Your task to perform on an android device: Search for sushi restaurants on Maps Image 0: 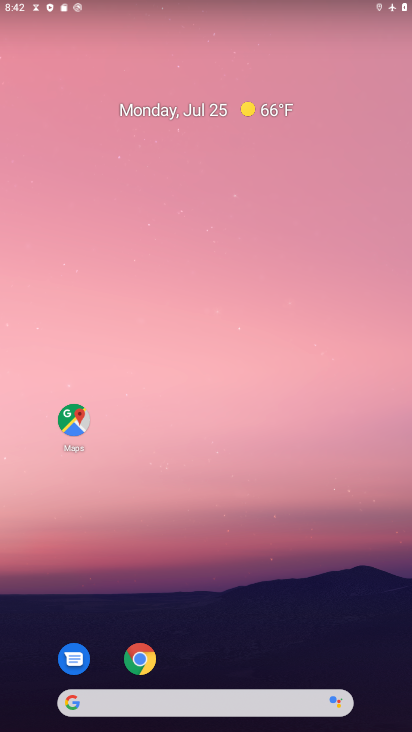
Step 0: drag from (235, 596) to (164, 120)
Your task to perform on an android device: Search for sushi restaurants on Maps Image 1: 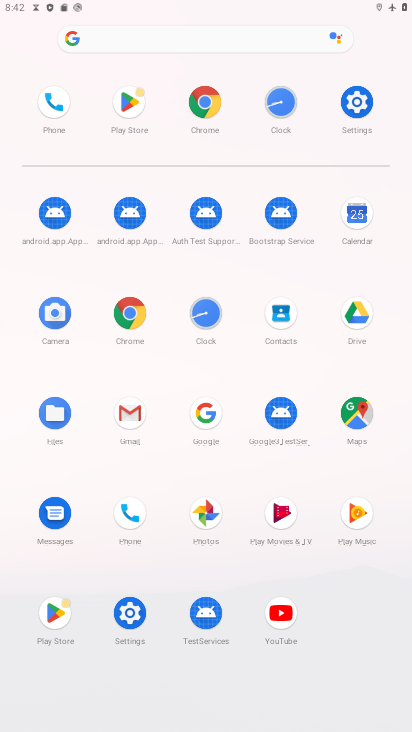
Step 1: click (354, 388)
Your task to perform on an android device: Search for sushi restaurants on Maps Image 2: 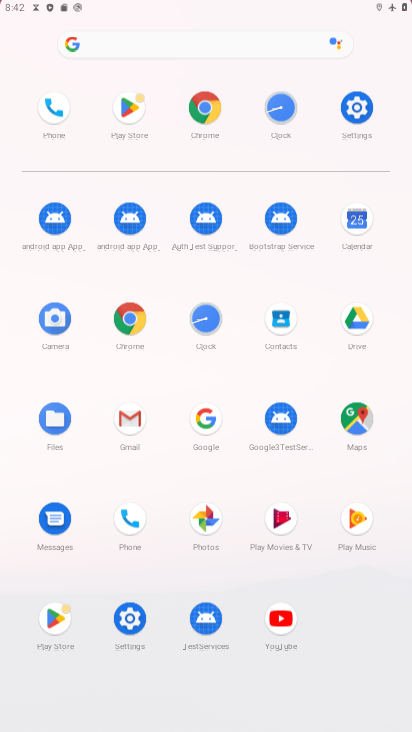
Step 2: click (356, 423)
Your task to perform on an android device: Search for sushi restaurants on Maps Image 3: 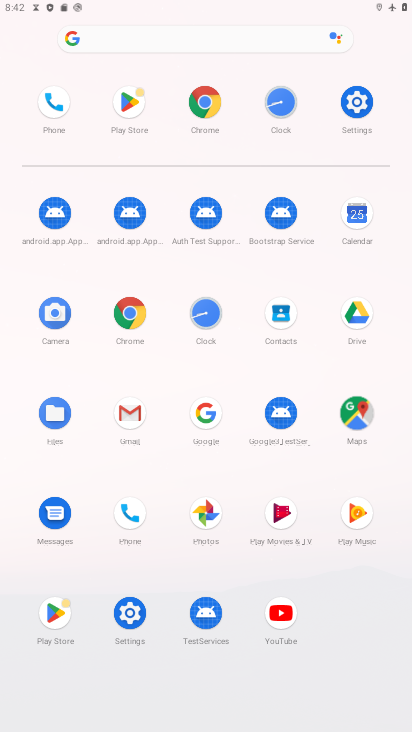
Step 3: click (352, 423)
Your task to perform on an android device: Search for sushi restaurants on Maps Image 4: 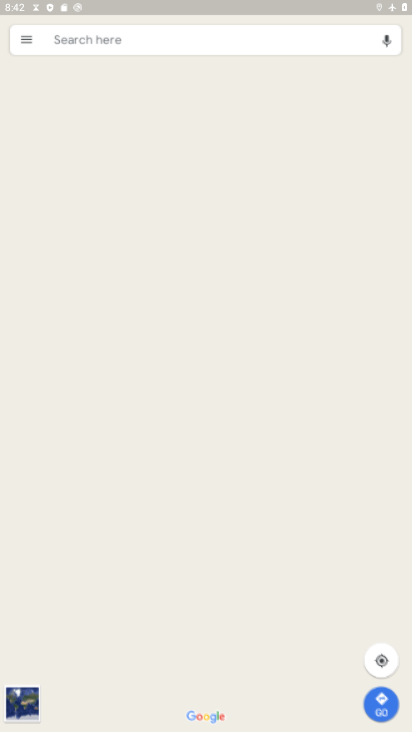
Step 4: click (353, 424)
Your task to perform on an android device: Search for sushi restaurants on Maps Image 5: 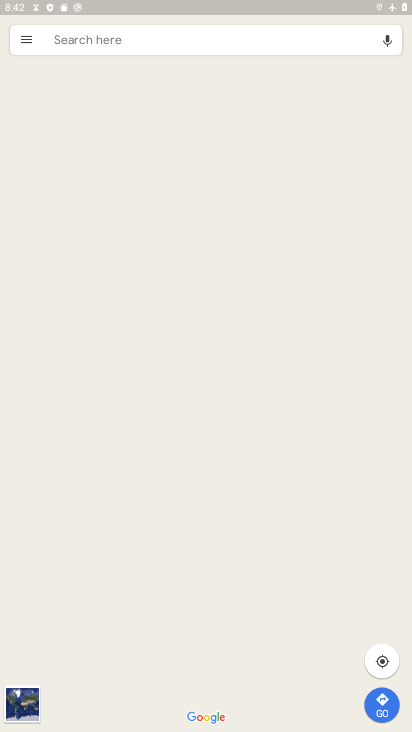
Step 5: click (353, 424)
Your task to perform on an android device: Search for sushi restaurants on Maps Image 6: 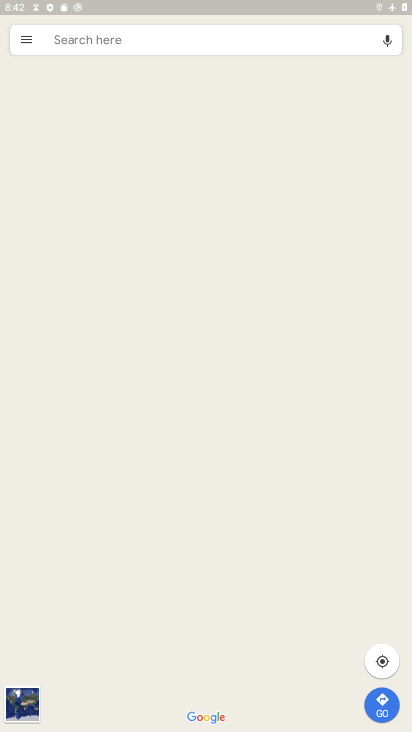
Step 6: click (81, 35)
Your task to perform on an android device: Search for sushi restaurants on Maps Image 7: 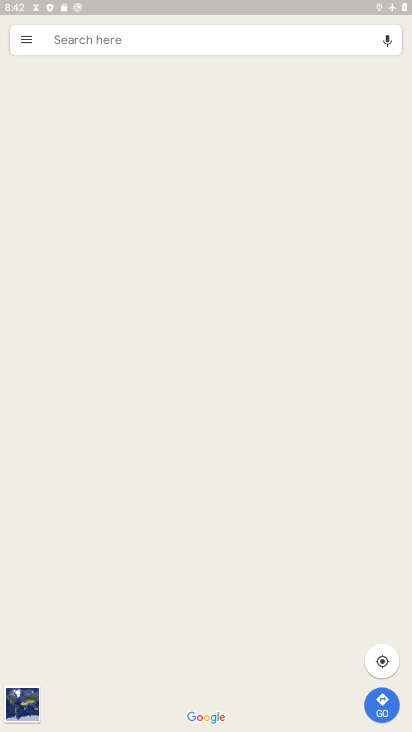
Step 7: click (81, 35)
Your task to perform on an android device: Search for sushi restaurants on Maps Image 8: 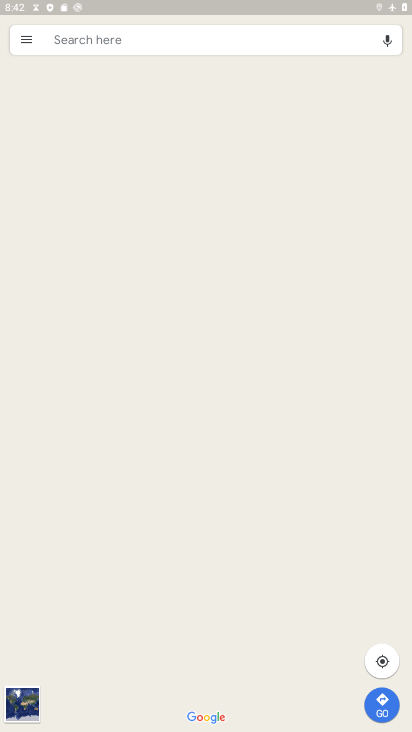
Step 8: click (85, 40)
Your task to perform on an android device: Search for sushi restaurants on Maps Image 9: 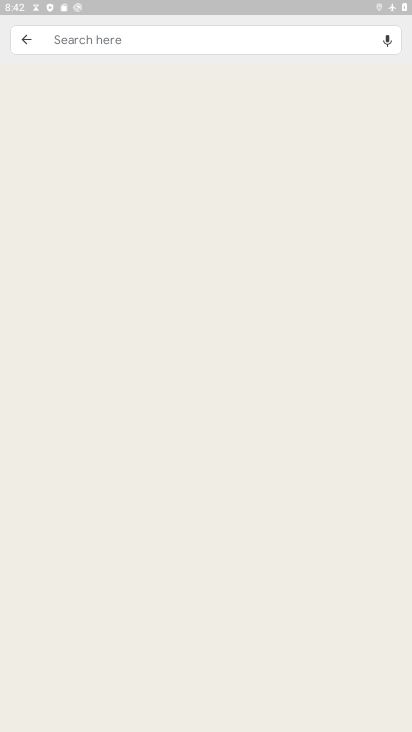
Step 9: click (85, 41)
Your task to perform on an android device: Search for sushi restaurants on Maps Image 10: 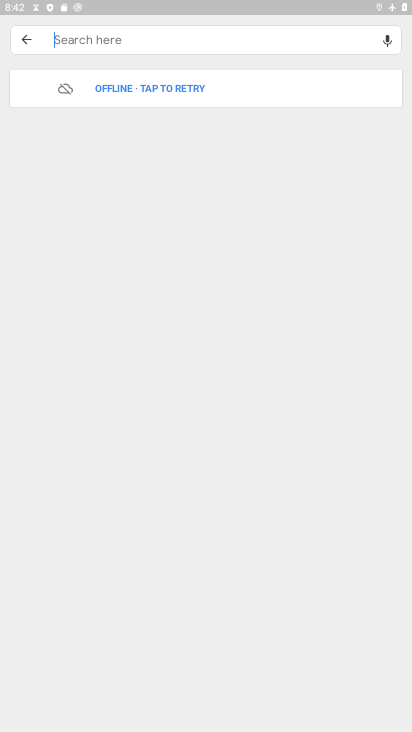
Step 10: click (88, 43)
Your task to perform on an android device: Search for sushi restaurants on Maps Image 11: 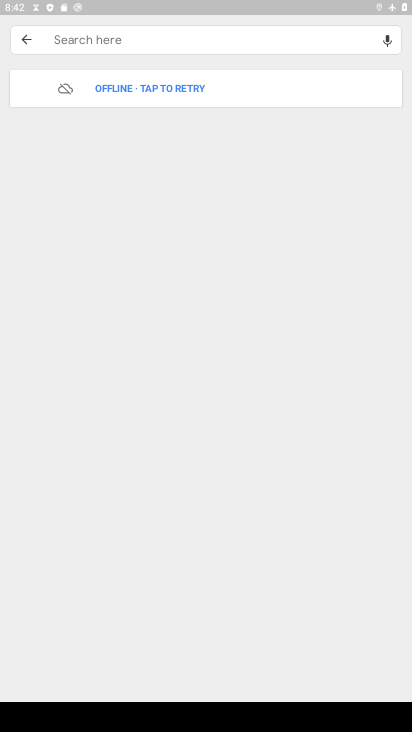
Step 11: type "sushi restaurants"
Your task to perform on an android device: Search for sushi restaurants on Maps Image 12: 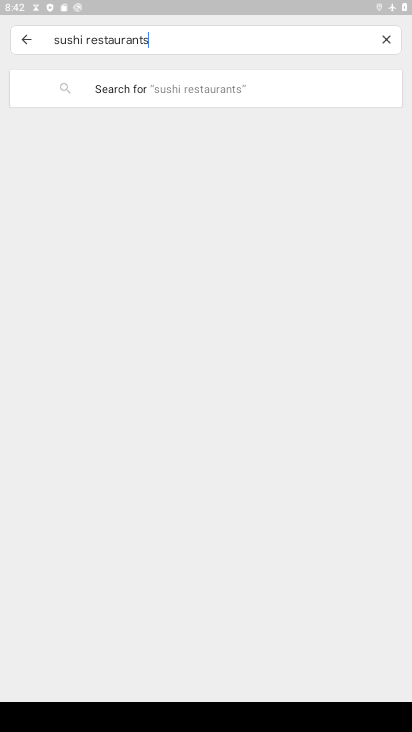
Step 12: click (175, 39)
Your task to perform on an android device: Search for sushi restaurants on Maps Image 13: 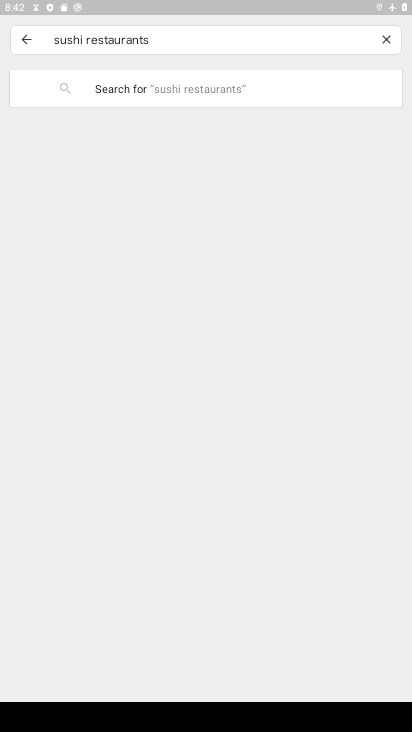
Step 13: click (177, 41)
Your task to perform on an android device: Search for sushi restaurants on Maps Image 14: 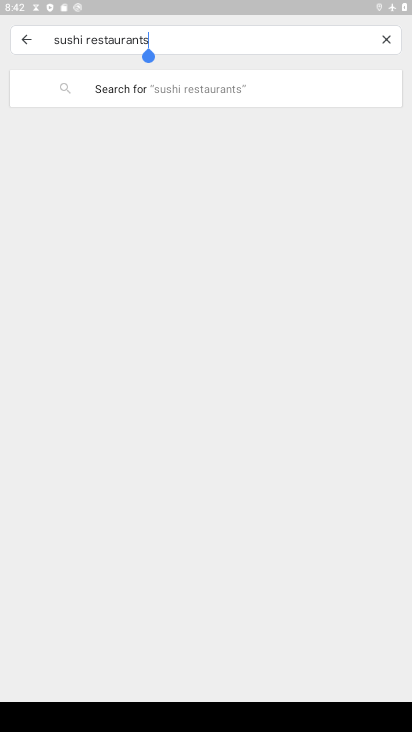
Step 14: task complete